Your task to perform on an android device: turn vacation reply on in the gmail app Image 0: 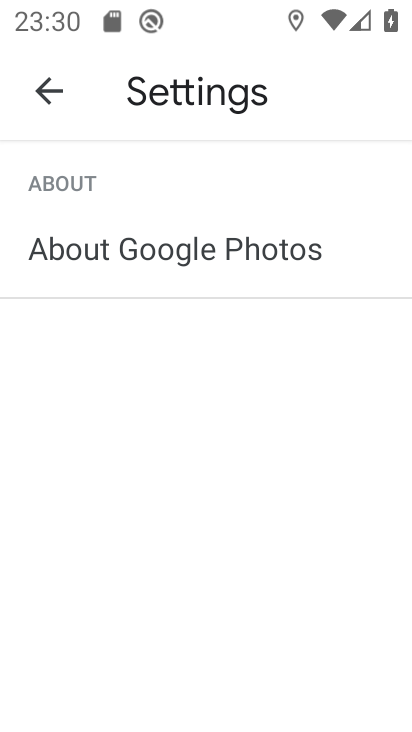
Step 0: press home button
Your task to perform on an android device: turn vacation reply on in the gmail app Image 1: 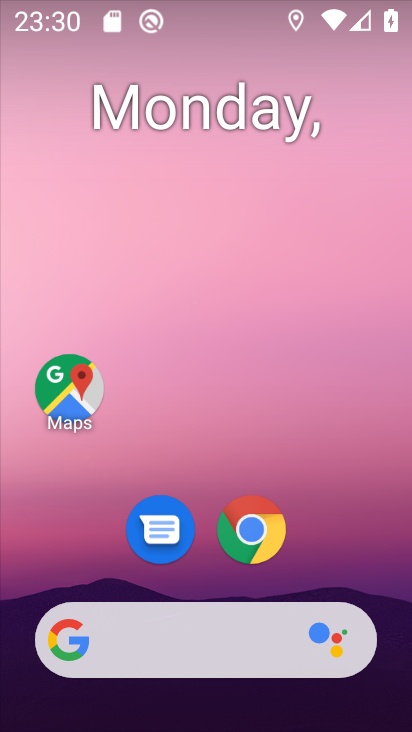
Step 1: drag from (319, 570) to (270, 170)
Your task to perform on an android device: turn vacation reply on in the gmail app Image 2: 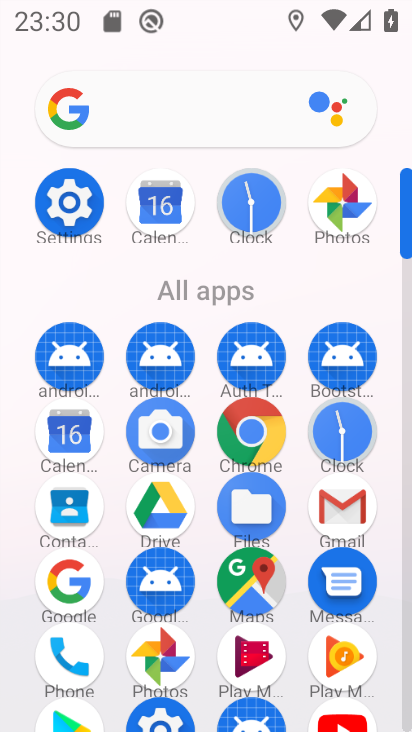
Step 2: click (348, 497)
Your task to perform on an android device: turn vacation reply on in the gmail app Image 3: 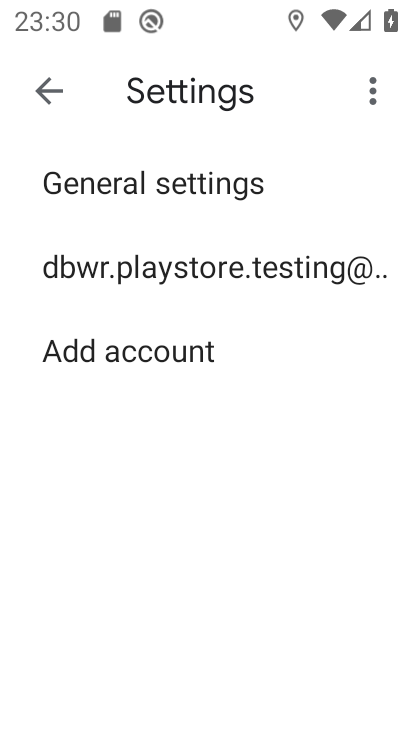
Step 3: click (235, 265)
Your task to perform on an android device: turn vacation reply on in the gmail app Image 4: 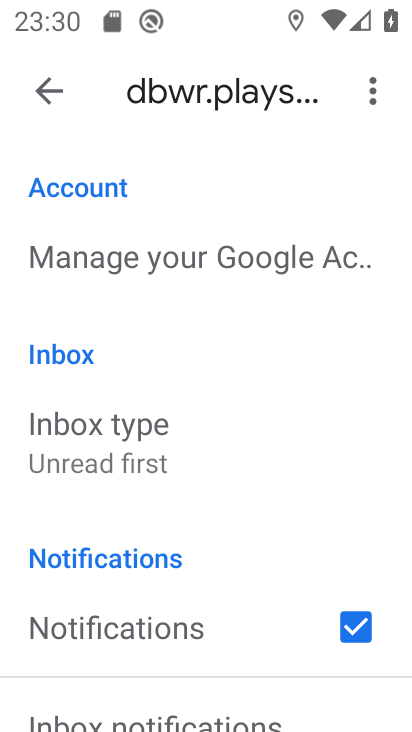
Step 4: drag from (265, 468) to (197, 176)
Your task to perform on an android device: turn vacation reply on in the gmail app Image 5: 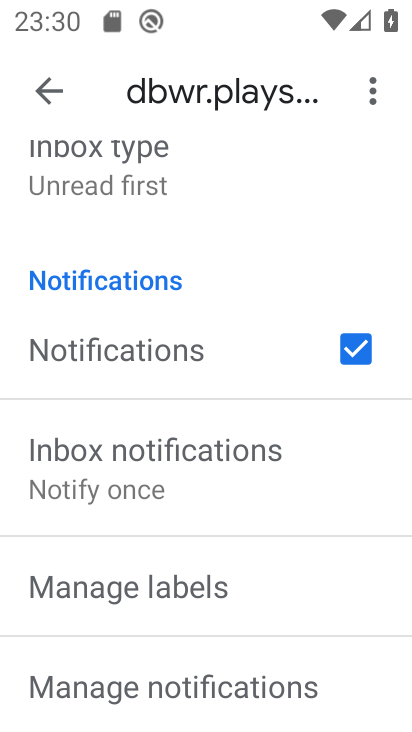
Step 5: drag from (310, 589) to (265, 189)
Your task to perform on an android device: turn vacation reply on in the gmail app Image 6: 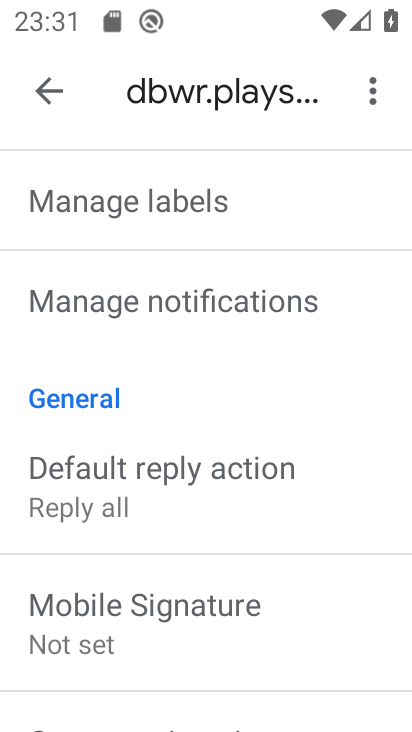
Step 6: drag from (335, 542) to (330, 226)
Your task to perform on an android device: turn vacation reply on in the gmail app Image 7: 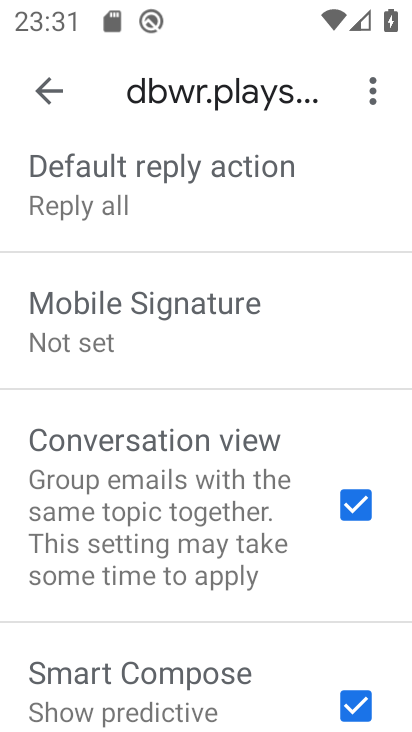
Step 7: drag from (292, 608) to (274, 263)
Your task to perform on an android device: turn vacation reply on in the gmail app Image 8: 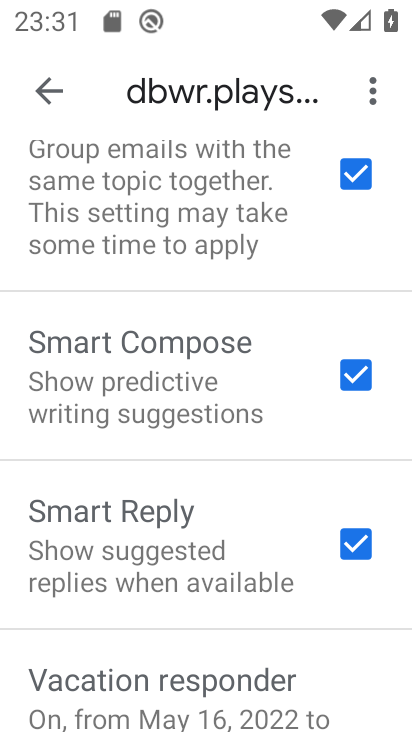
Step 8: drag from (315, 652) to (287, 361)
Your task to perform on an android device: turn vacation reply on in the gmail app Image 9: 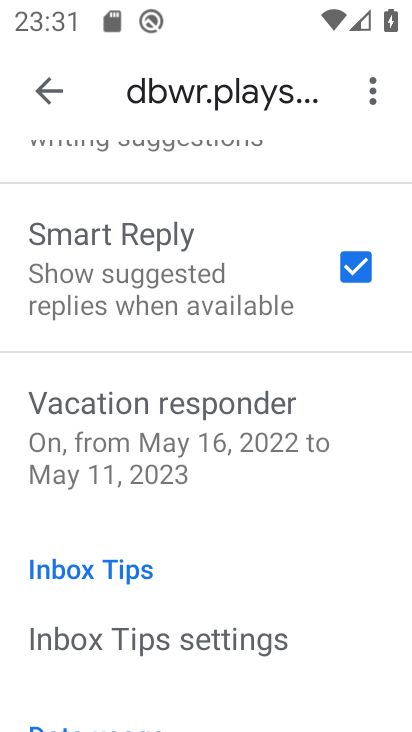
Step 9: click (272, 431)
Your task to perform on an android device: turn vacation reply on in the gmail app Image 10: 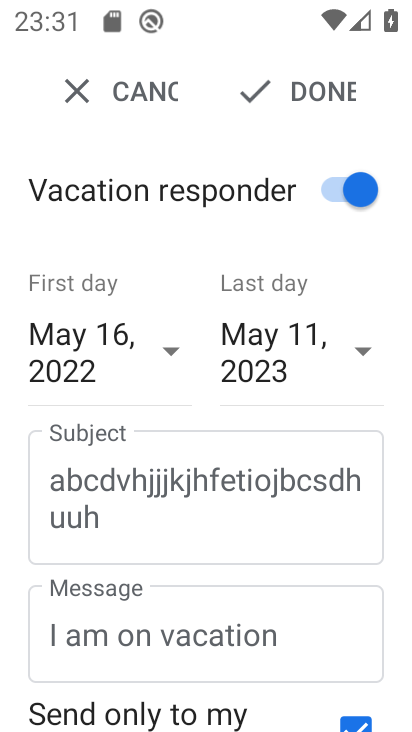
Step 10: click (315, 95)
Your task to perform on an android device: turn vacation reply on in the gmail app Image 11: 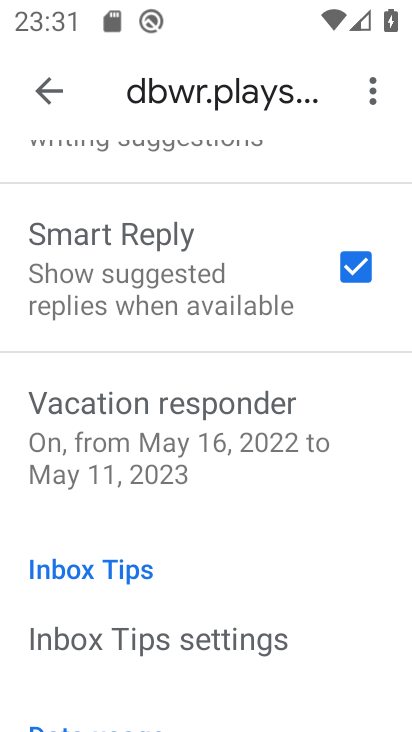
Step 11: task complete